Your task to perform on an android device: turn off data saver in the chrome app Image 0: 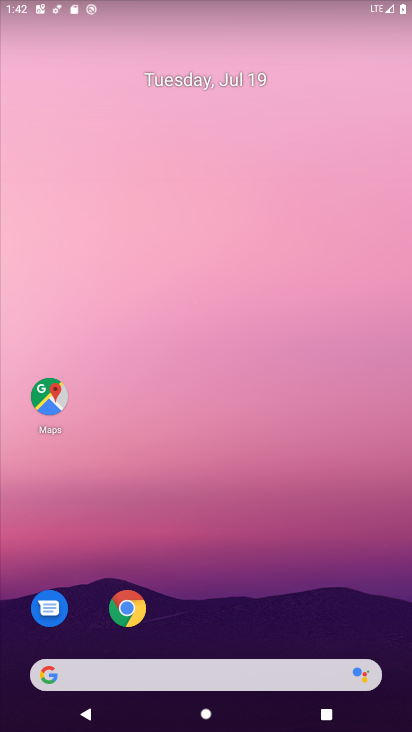
Step 0: drag from (220, 587) to (262, 129)
Your task to perform on an android device: turn off data saver in the chrome app Image 1: 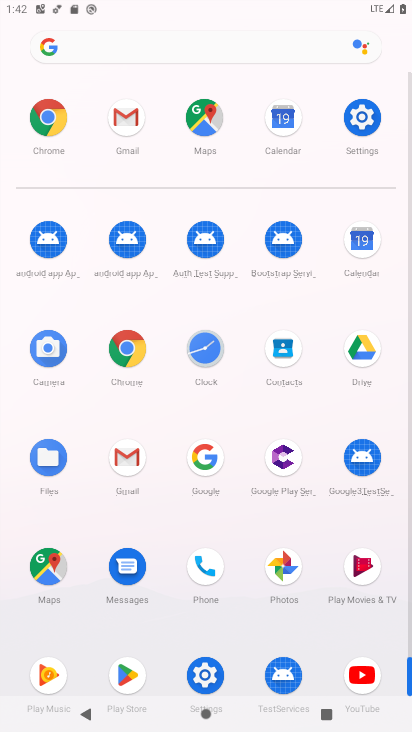
Step 1: click (125, 337)
Your task to perform on an android device: turn off data saver in the chrome app Image 2: 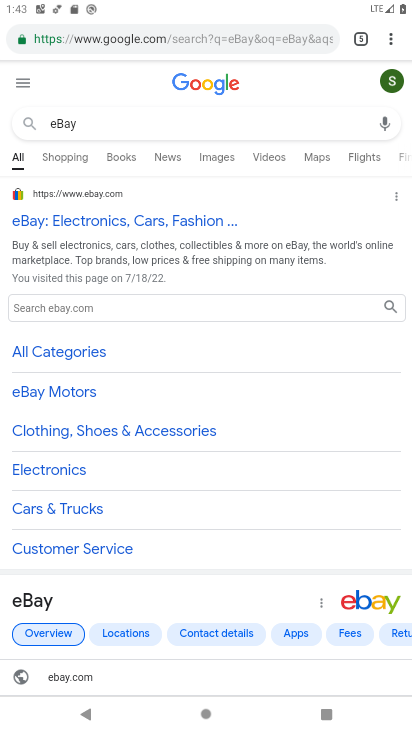
Step 2: click (392, 47)
Your task to perform on an android device: turn off data saver in the chrome app Image 3: 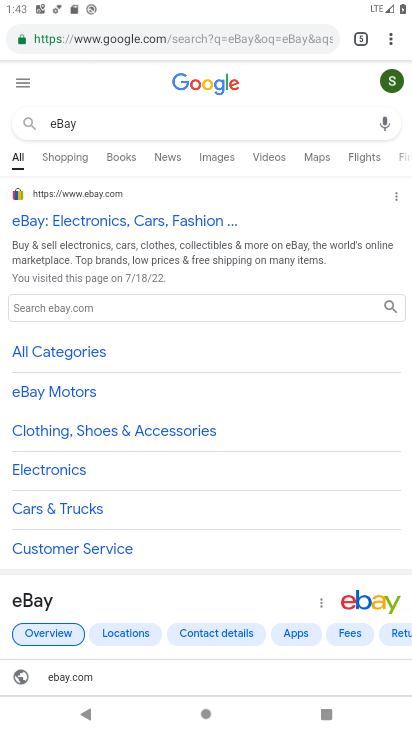
Step 3: click (390, 41)
Your task to perform on an android device: turn off data saver in the chrome app Image 4: 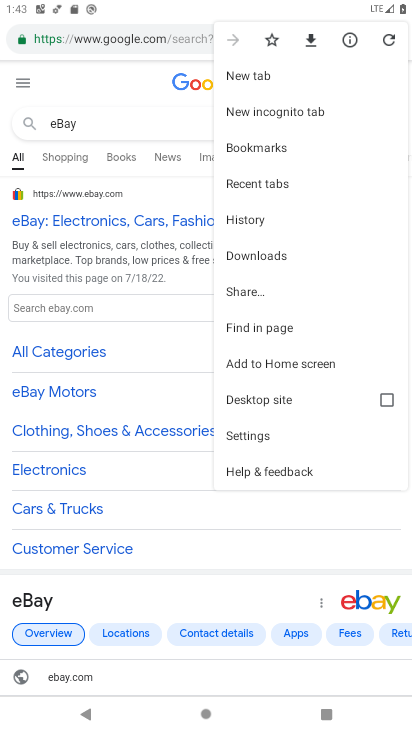
Step 4: click (271, 429)
Your task to perform on an android device: turn off data saver in the chrome app Image 5: 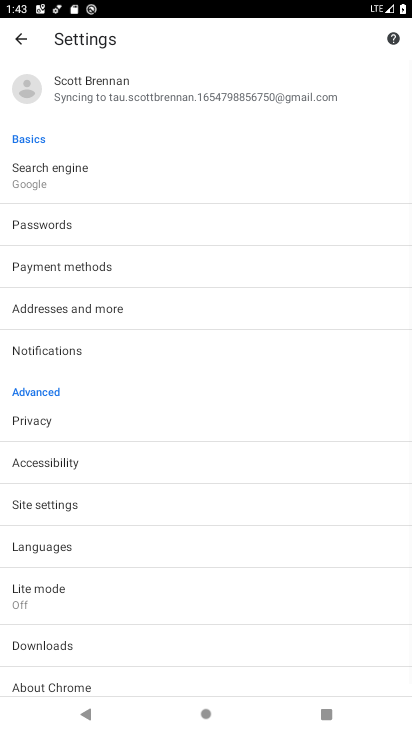
Step 5: click (64, 602)
Your task to perform on an android device: turn off data saver in the chrome app Image 6: 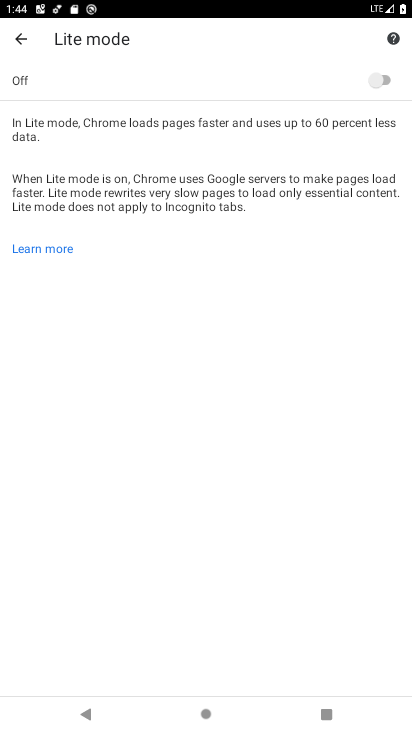
Step 6: task complete